Your task to perform on an android device: Go to Reddit.com Image 0: 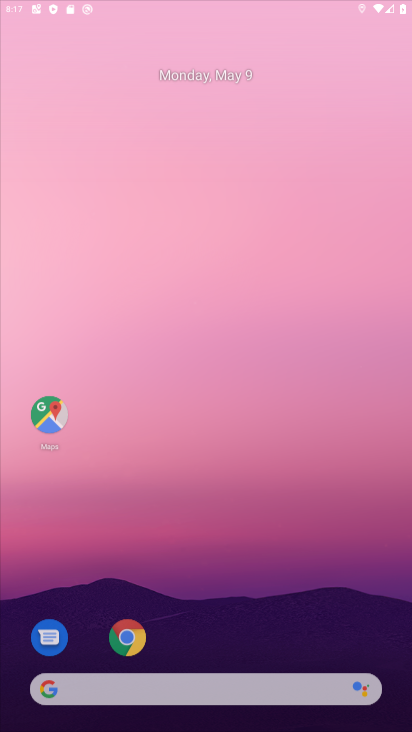
Step 0: click (164, 223)
Your task to perform on an android device: Go to Reddit.com Image 1: 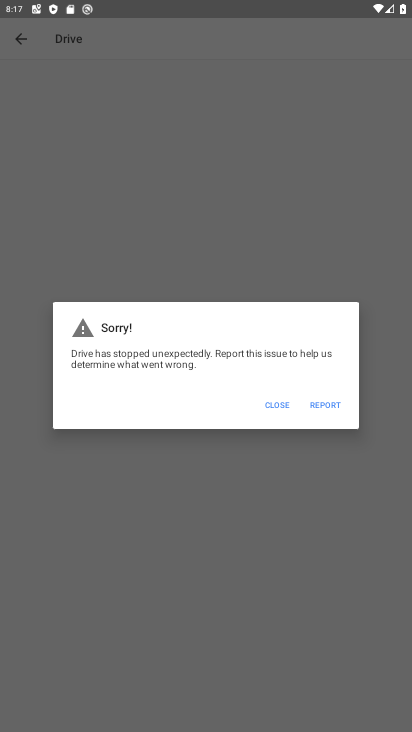
Step 1: click (217, 567)
Your task to perform on an android device: Go to Reddit.com Image 2: 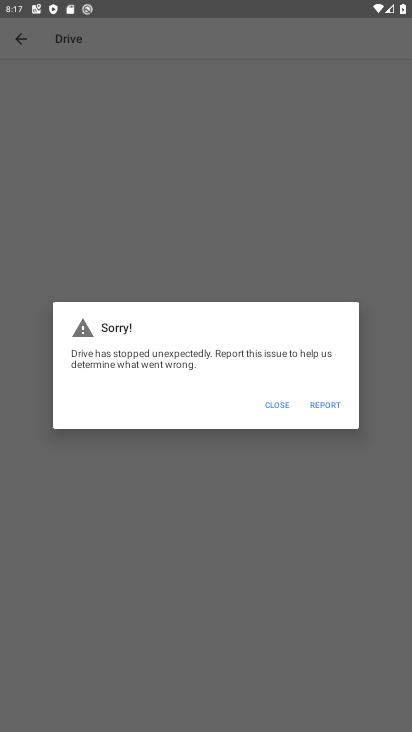
Step 2: press home button
Your task to perform on an android device: Go to Reddit.com Image 3: 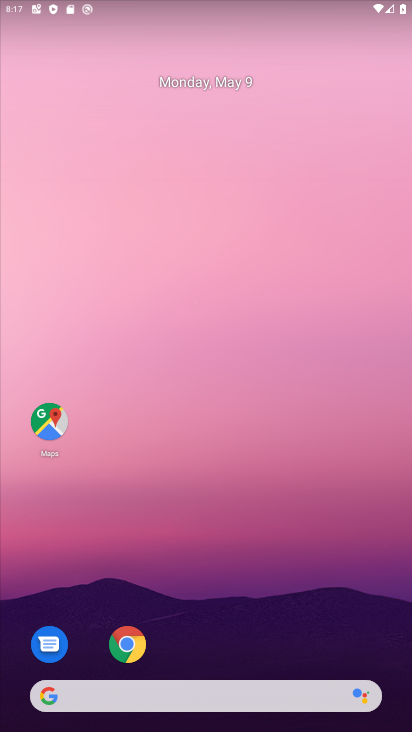
Step 3: click (127, 645)
Your task to perform on an android device: Go to Reddit.com Image 4: 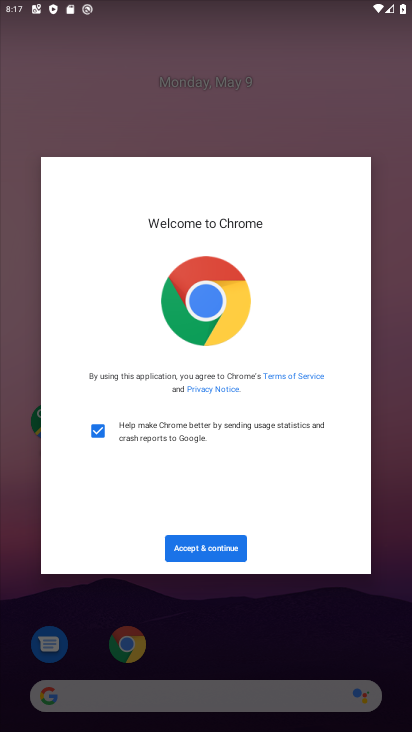
Step 4: click (208, 550)
Your task to perform on an android device: Go to Reddit.com Image 5: 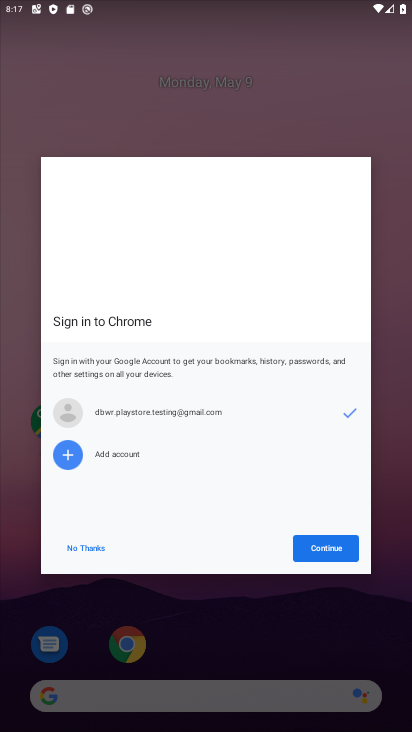
Step 5: click (330, 553)
Your task to perform on an android device: Go to Reddit.com Image 6: 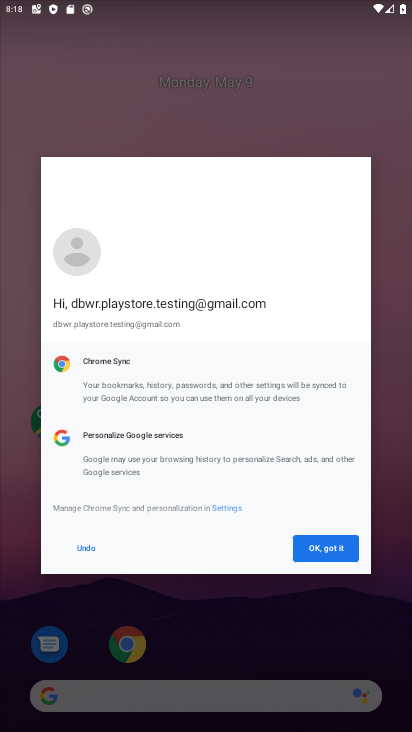
Step 6: click (330, 553)
Your task to perform on an android device: Go to Reddit.com Image 7: 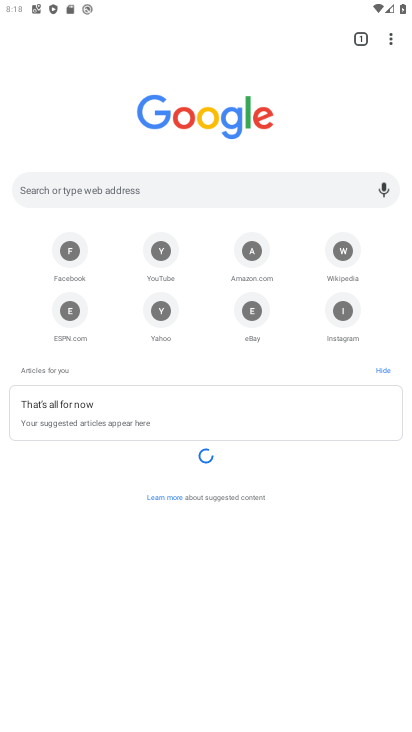
Step 7: click (141, 192)
Your task to perform on an android device: Go to Reddit.com Image 8: 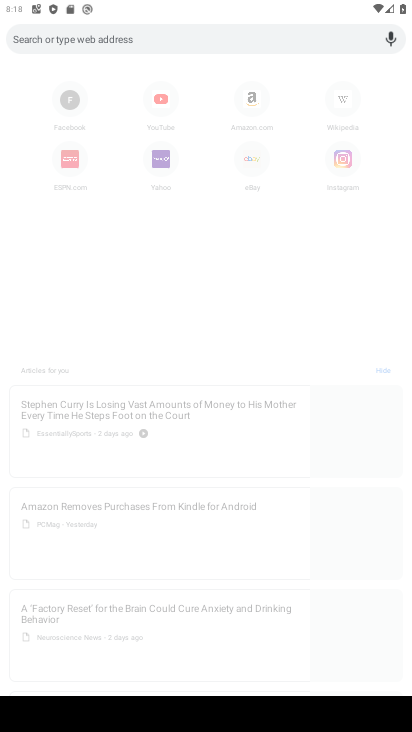
Step 8: click (65, 39)
Your task to perform on an android device: Go to Reddit.com Image 9: 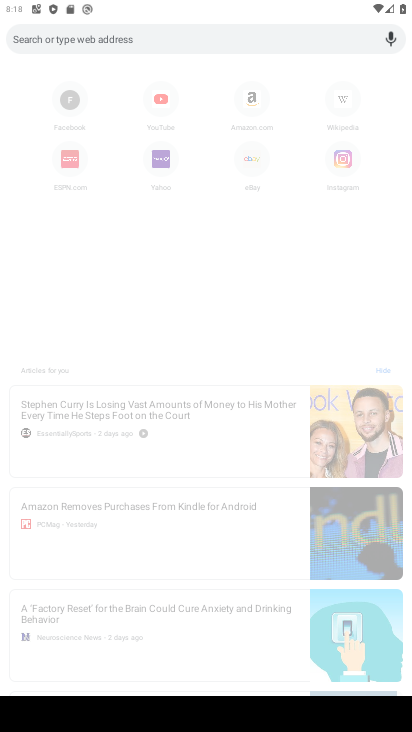
Step 9: type "reddit.com"
Your task to perform on an android device: Go to Reddit.com Image 10: 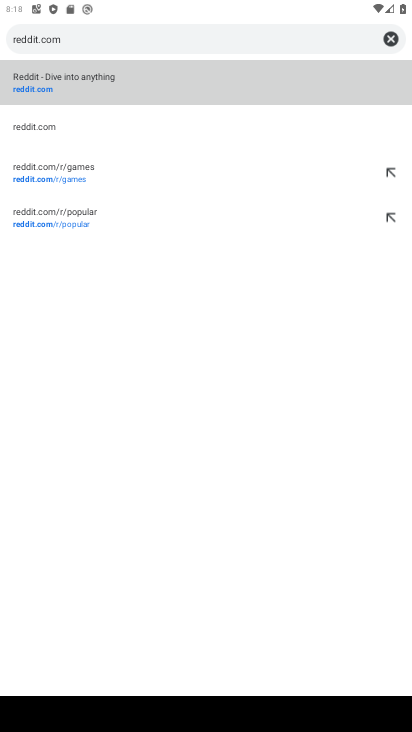
Step 10: drag from (280, 149) to (204, 114)
Your task to perform on an android device: Go to Reddit.com Image 11: 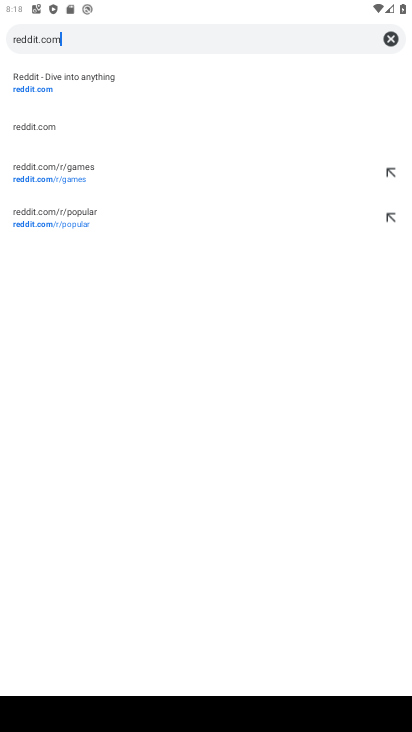
Step 11: click (39, 118)
Your task to perform on an android device: Go to Reddit.com Image 12: 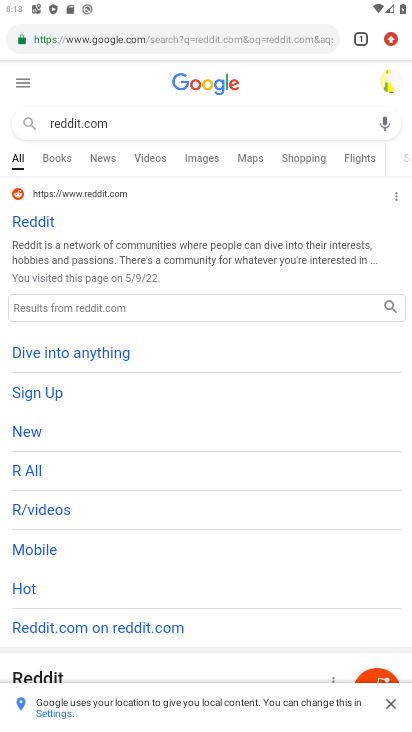
Step 12: task complete